Your task to perform on an android device: Open the web browser Image 0: 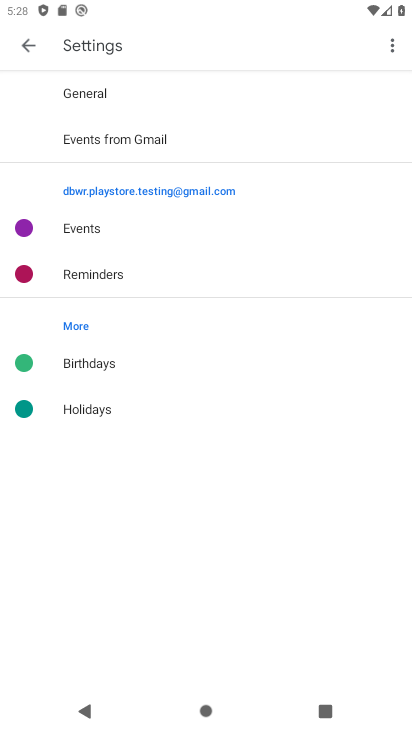
Step 0: press back button
Your task to perform on an android device: Open the web browser Image 1: 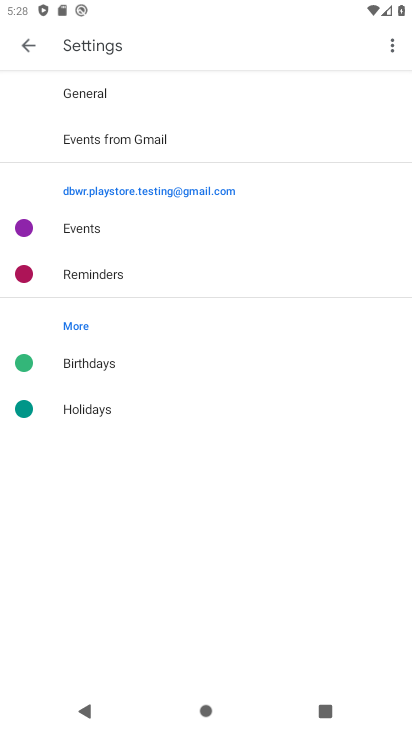
Step 1: press home button
Your task to perform on an android device: Open the web browser Image 2: 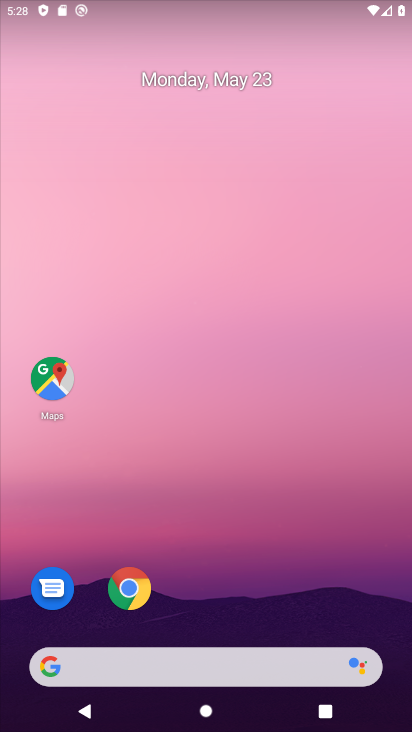
Step 2: drag from (293, 528) to (231, 19)
Your task to perform on an android device: Open the web browser Image 3: 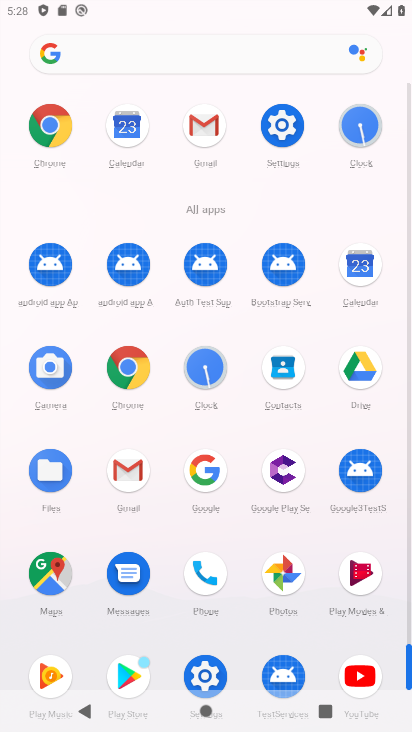
Step 3: drag from (15, 535) to (0, 255)
Your task to perform on an android device: Open the web browser Image 4: 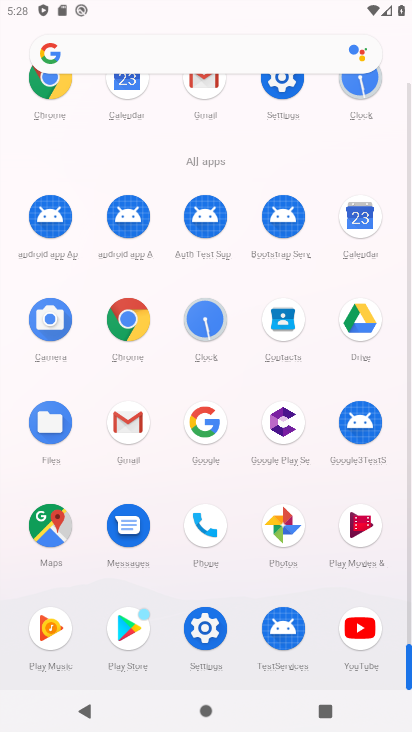
Step 4: drag from (23, 484) to (17, 169)
Your task to perform on an android device: Open the web browser Image 5: 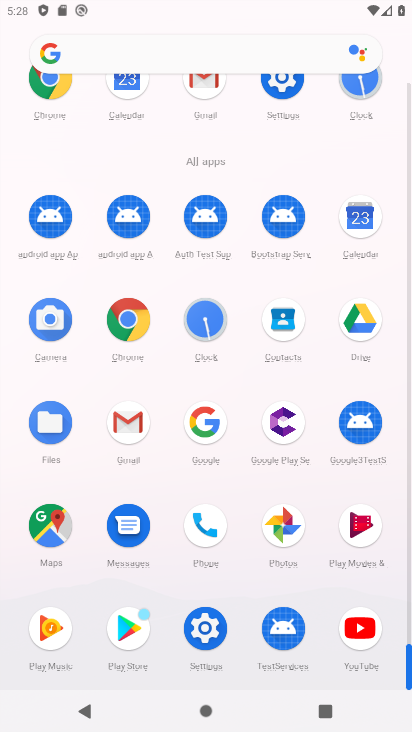
Step 5: click (129, 321)
Your task to perform on an android device: Open the web browser Image 6: 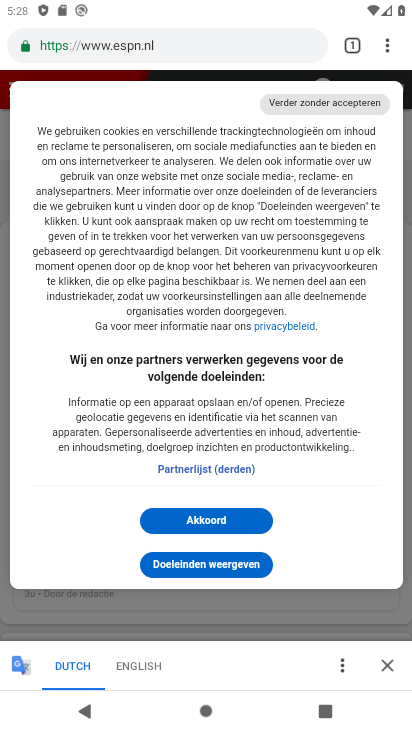
Step 6: click (149, 44)
Your task to perform on an android device: Open the web browser Image 7: 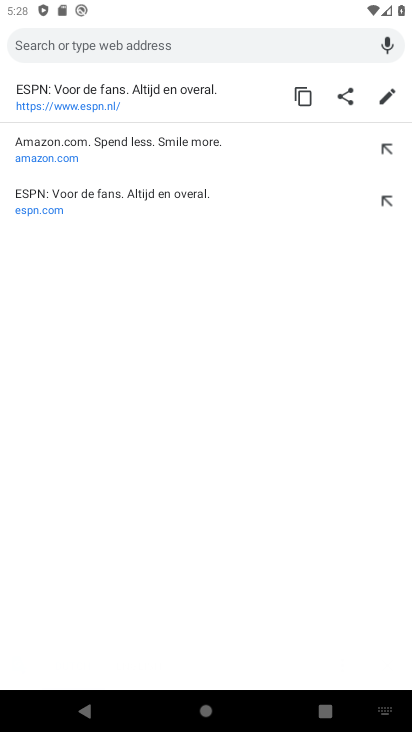
Step 7: task complete